Your task to perform on an android device: set an alarm Image 0: 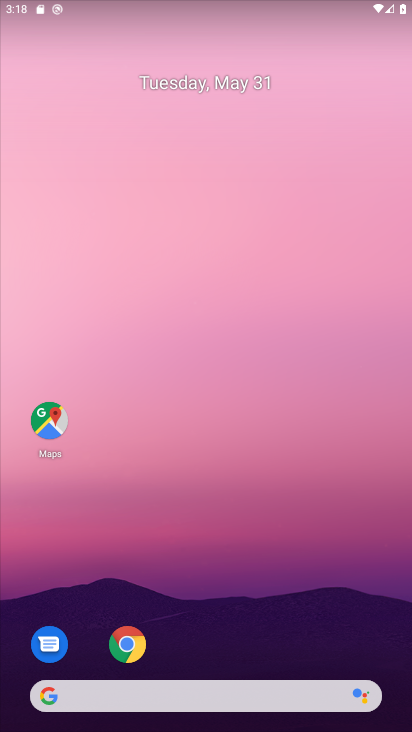
Step 0: drag from (216, 629) to (233, 53)
Your task to perform on an android device: set an alarm Image 1: 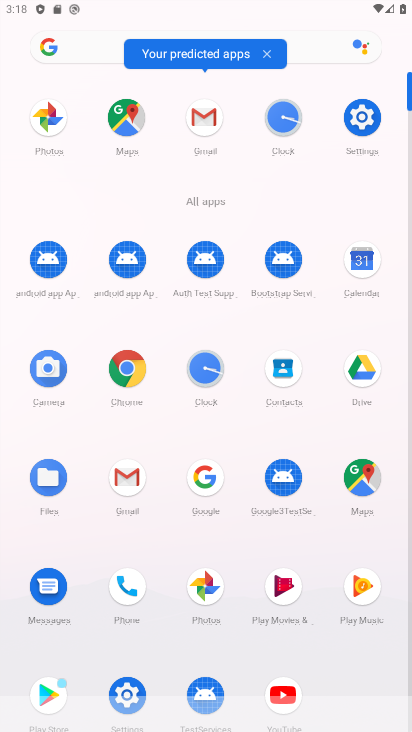
Step 1: click (201, 373)
Your task to perform on an android device: set an alarm Image 2: 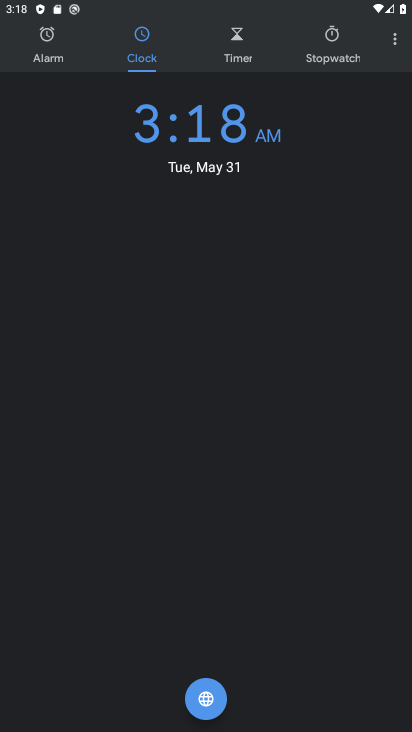
Step 2: click (33, 36)
Your task to perform on an android device: set an alarm Image 3: 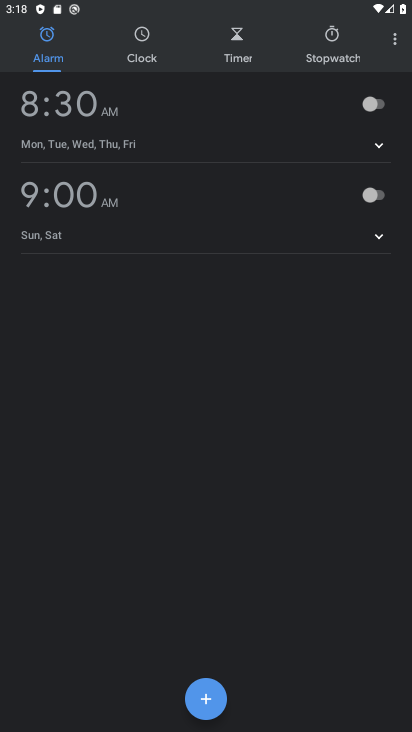
Step 3: click (365, 199)
Your task to perform on an android device: set an alarm Image 4: 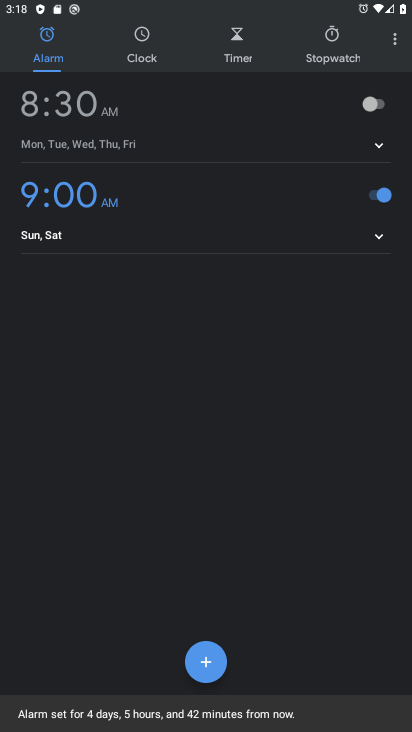
Step 4: task complete